Your task to perform on an android device: Do I have any events this weekend? Image 0: 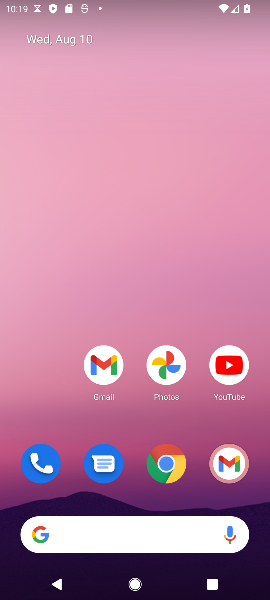
Step 0: drag from (17, 593) to (147, 280)
Your task to perform on an android device: Do I have any events this weekend? Image 1: 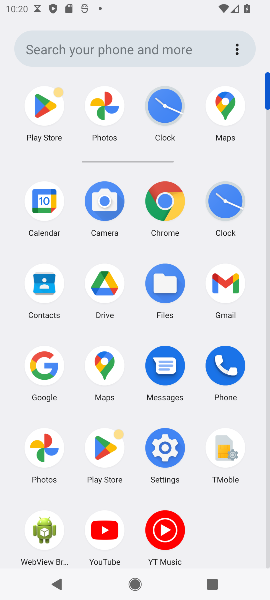
Step 1: click (43, 214)
Your task to perform on an android device: Do I have any events this weekend? Image 2: 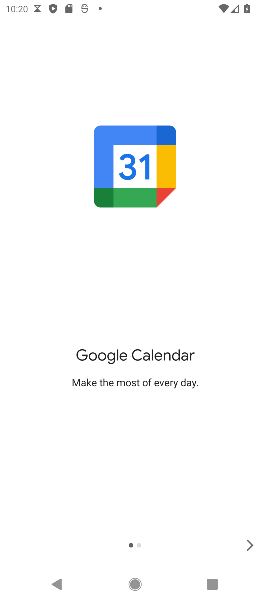
Step 2: click (249, 546)
Your task to perform on an android device: Do I have any events this weekend? Image 3: 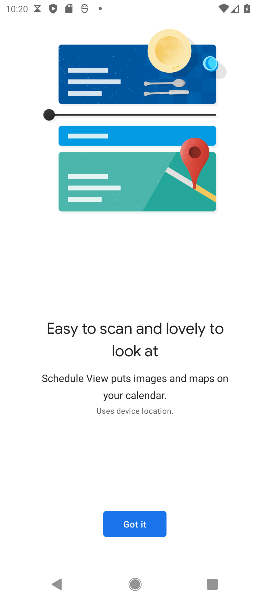
Step 3: click (143, 526)
Your task to perform on an android device: Do I have any events this weekend? Image 4: 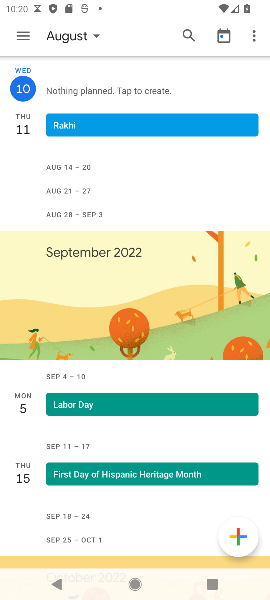
Step 4: click (96, 37)
Your task to perform on an android device: Do I have any events this weekend? Image 5: 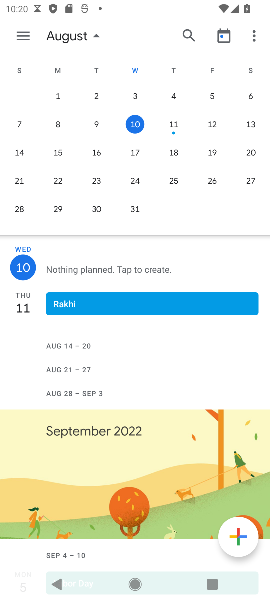
Step 5: task complete